Your task to perform on an android device: choose inbox layout in the gmail app Image 0: 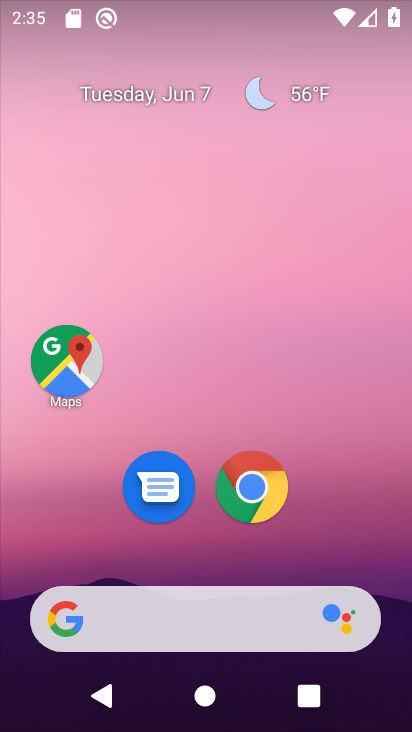
Step 0: drag from (391, 563) to (348, 159)
Your task to perform on an android device: choose inbox layout in the gmail app Image 1: 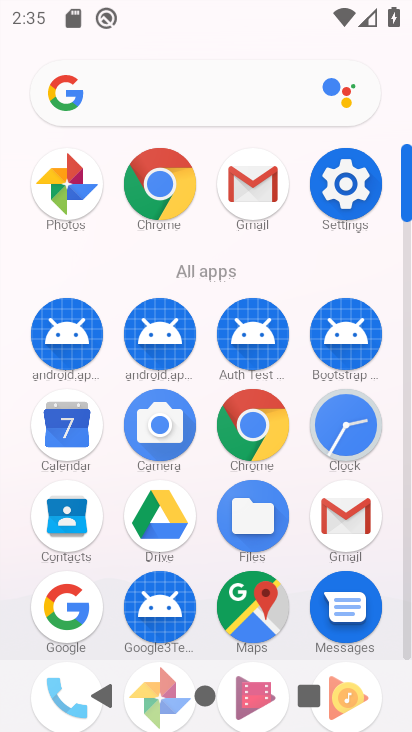
Step 1: click (244, 181)
Your task to perform on an android device: choose inbox layout in the gmail app Image 2: 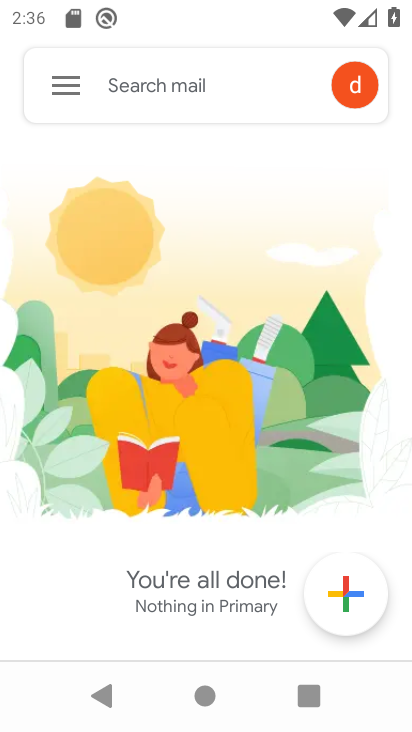
Step 2: click (64, 86)
Your task to perform on an android device: choose inbox layout in the gmail app Image 3: 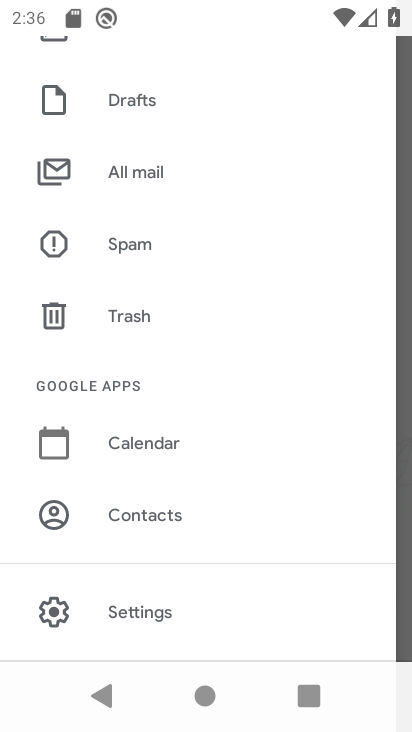
Step 3: click (135, 611)
Your task to perform on an android device: choose inbox layout in the gmail app Image 4: 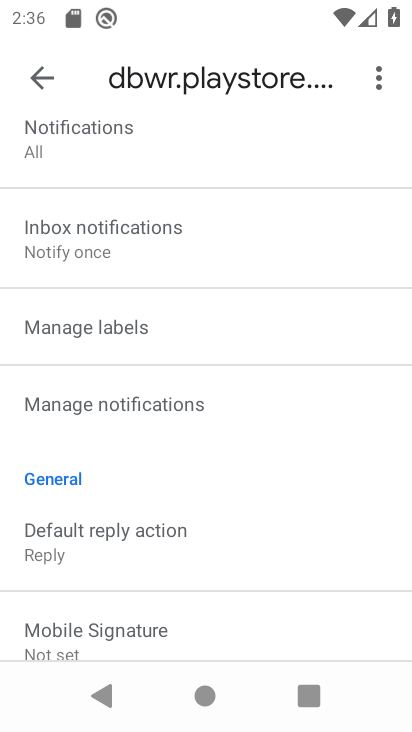
Step 4: drag from (142, 195) to (211, 557)
Your task to perform on an android device: choose inbox layout in the gmail app Image 5: 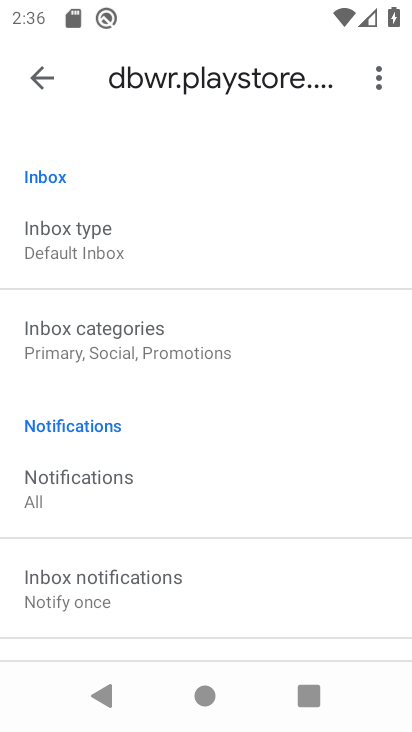
Step 5: click (138, 241)
Your task to perform on an android device: choose inbox layout in the gmail app Image 6: 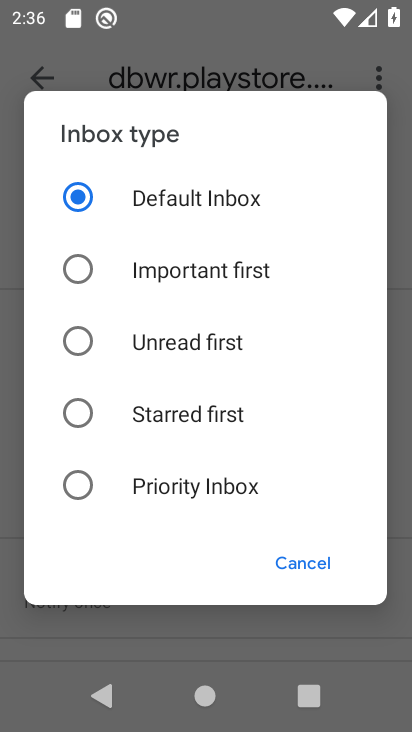
Step 6: click (215, 289)
Your task to perform on an android device: choose inbox layout in the gmail app Image 7: 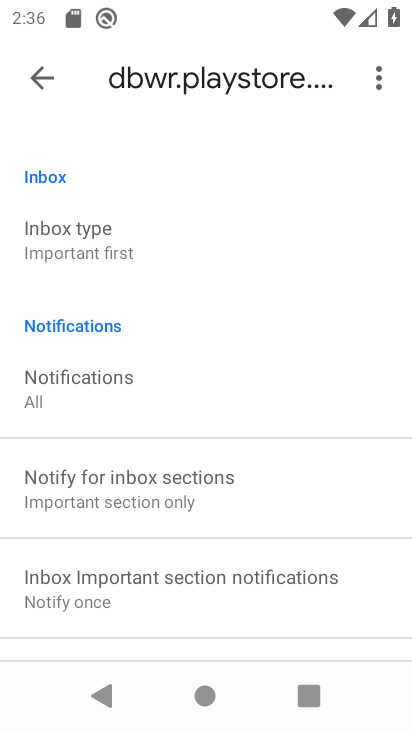
Step 7: task complete